Your task to perform on an android device: Go to privacy settings Image 0: 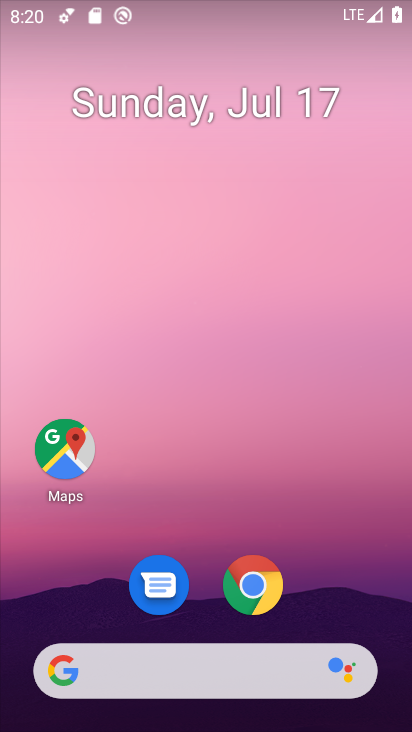
Step 0: drag from (321, 578) to (327, 88)
Your task to perform on an android device: Go to privacy settings Image 1: 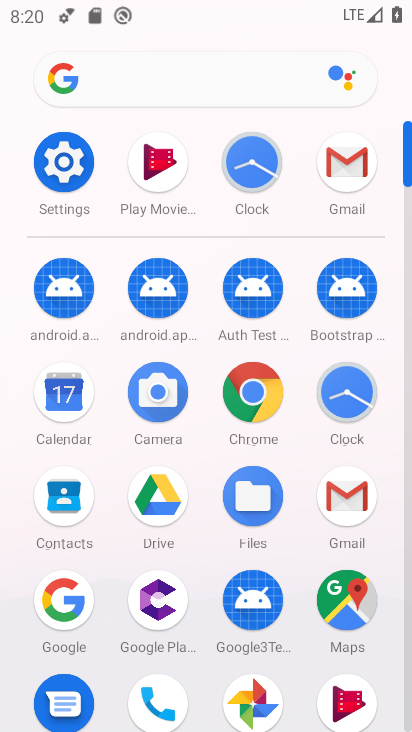
Step 1: click (49, 157)
Your task to perform on an android device: Go to privacy settings Image 2: 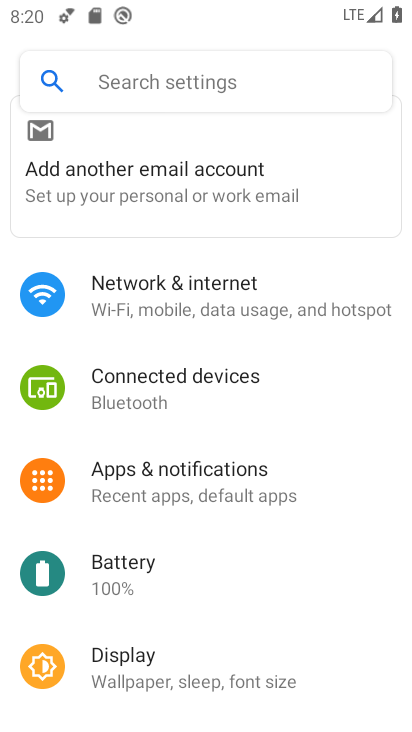
Step 2: drag from (211, 546) to (255, 221)
Your task to perform on an android device: Go to privacy settings Image 3: 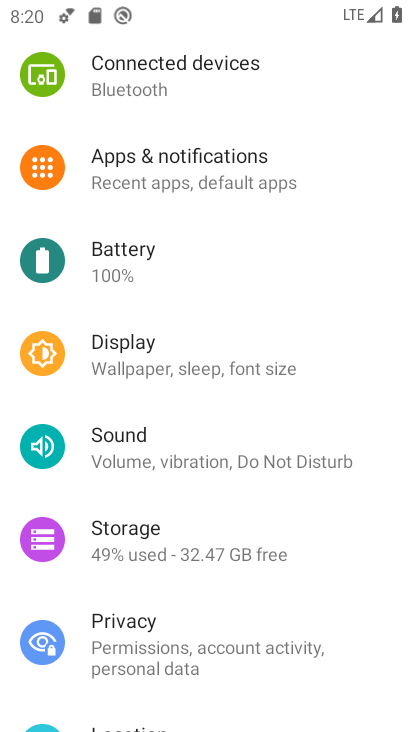
Step 3: click (200, 641)
Your task to perform on an android device: Go to privacy settings Image 4: 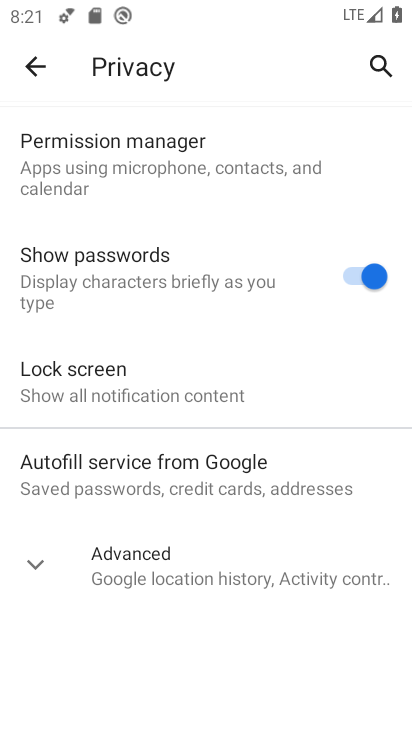
Step 4: task complete